Your task to perform on an android device: Show me popular games on the Play Store Image 0: 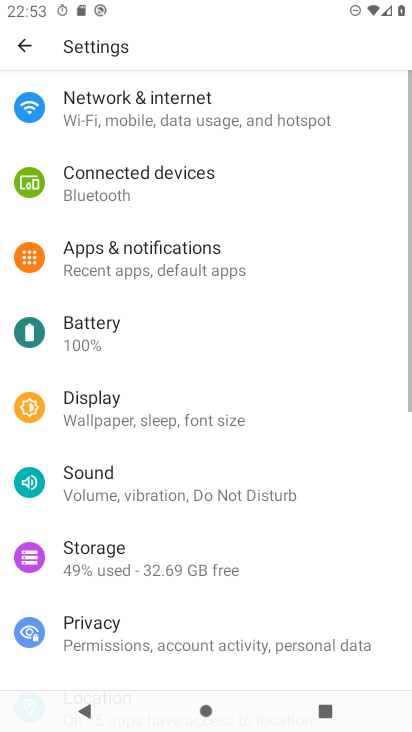
Step 0: press home button
Your task to perform on an android device: Show me popular games on the Play Store Image 1: 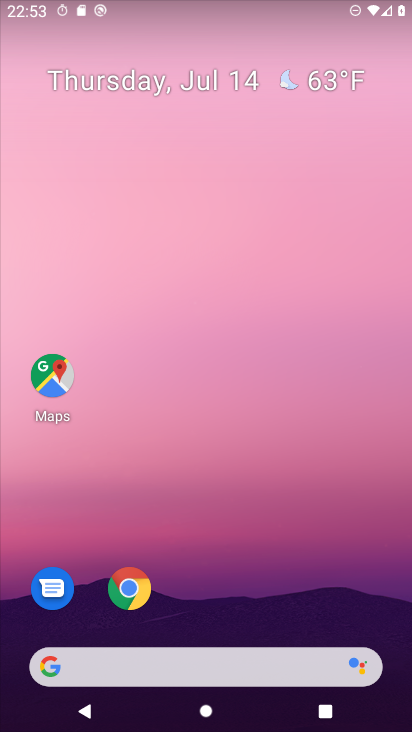
Step 1: drag from (336, 609) to (355, 23)
Your task to perform on an android device: Show me popular games on the Play Store Image 2: 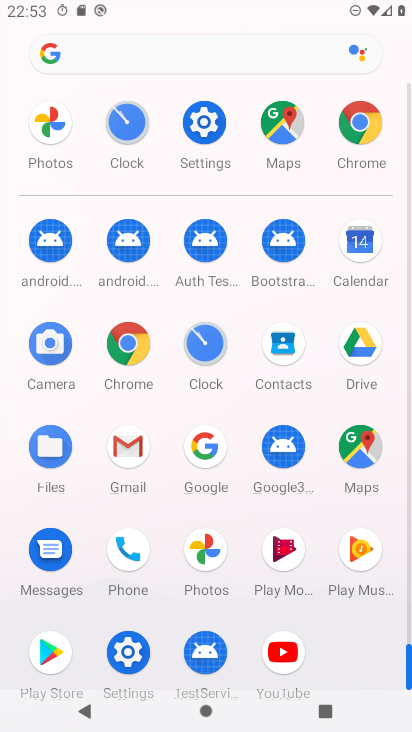
Step 2: click (56, 658)
Your task to perform on an android device: Show me popular games on the Play Store Image 3: 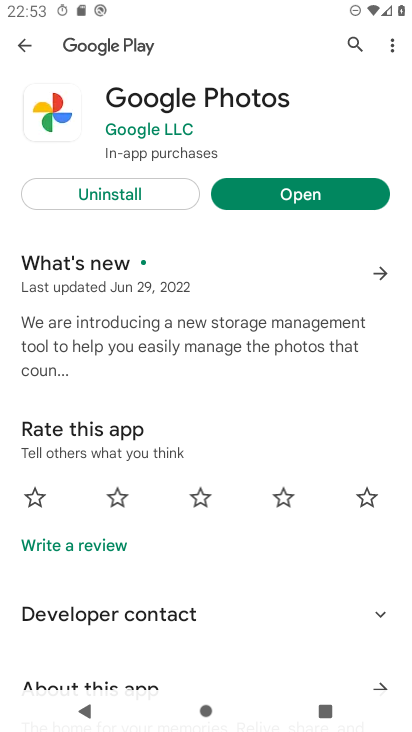
Step 3: press back button
Your task to perform on an android device: Show me popular games on the Play Store Image 4: 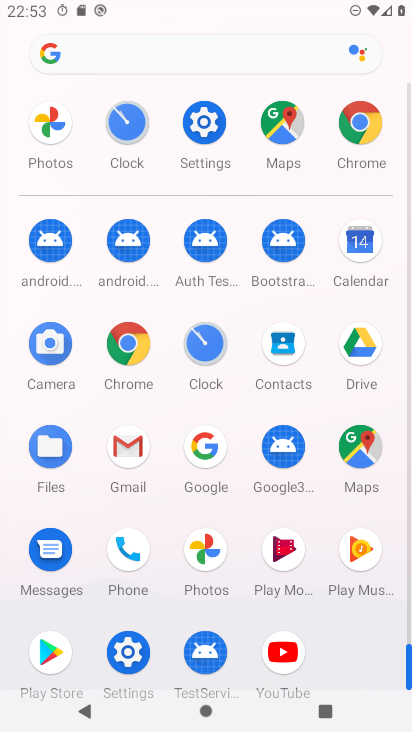
Step 4: click (59, 654)
Your task to perform on an android device: Show me popular games on the Play Store Image 5: 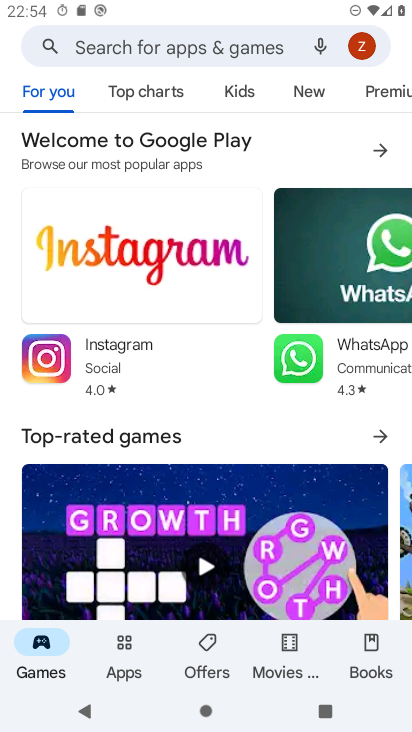
Step 5: task complete